Your task to perform on an android device: turn off smart reply in the gmail app Image 0: 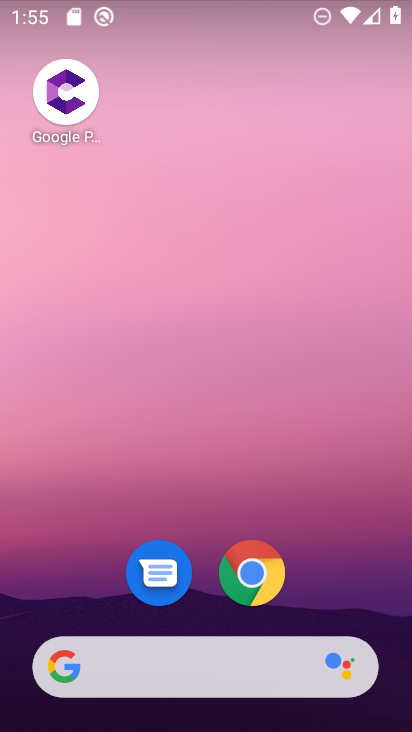
Step 0: drag from (348, 553) to (230, 121)
Your task to perform on an android device: turn off smart reply in the gmail app Image 1: 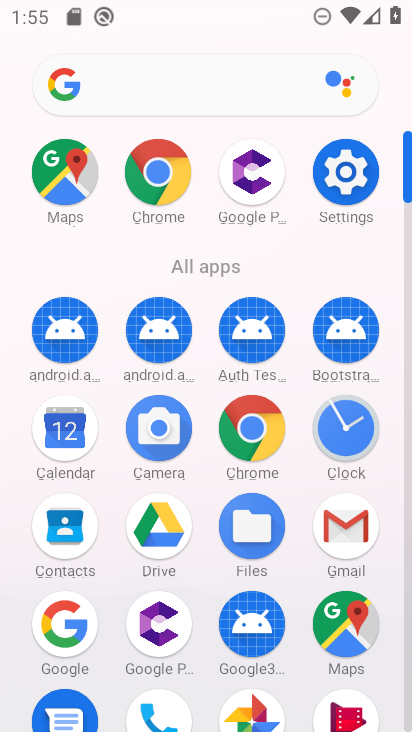
Step 1: click (347, 523)
Your task to perform on an android device: turn off smart reply in the gmail app Image 2: 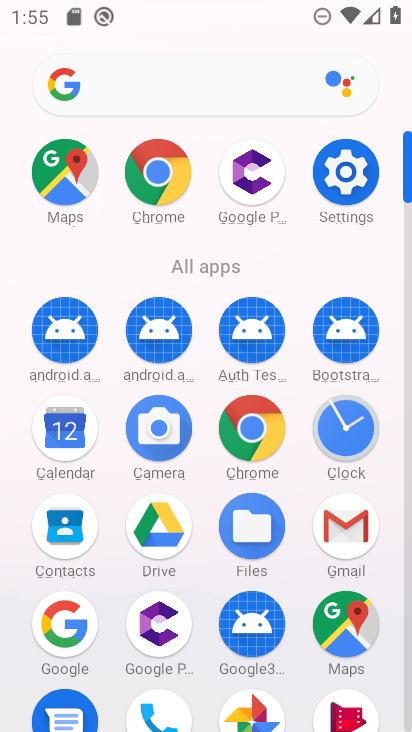
Step 2: click (347, 523)
Your task to perform on an android device: turn off smart reply in the gmail app Image 3: 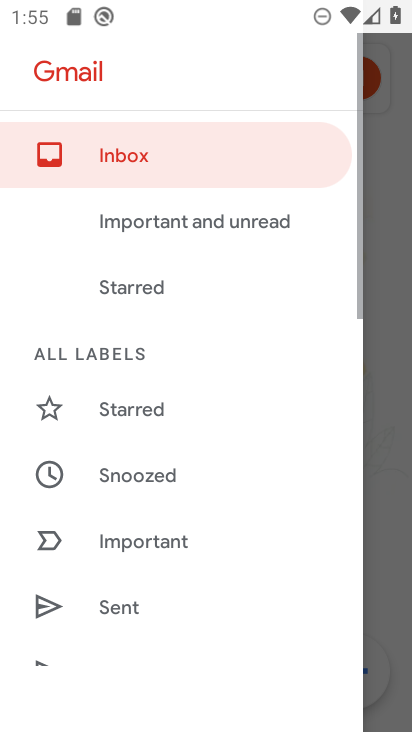
Step 3: click (349, 524)
Your task to perform on an android device: turn off smart reply in the gmail app Image 4: 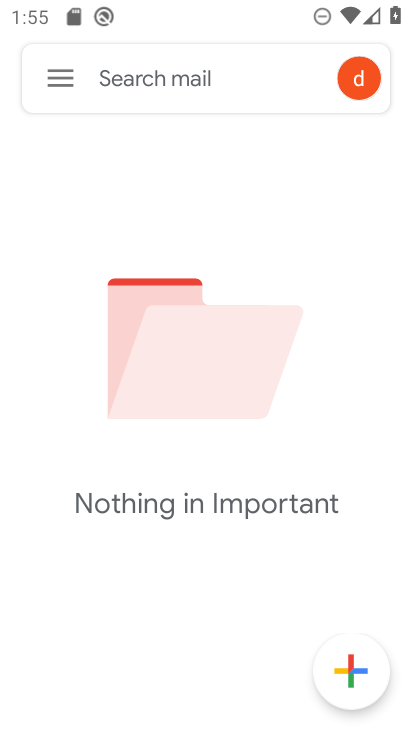
Step 4: click (71, 84)
Your task to perform on an android device: turn off smart reply in the gmail app Image 5: 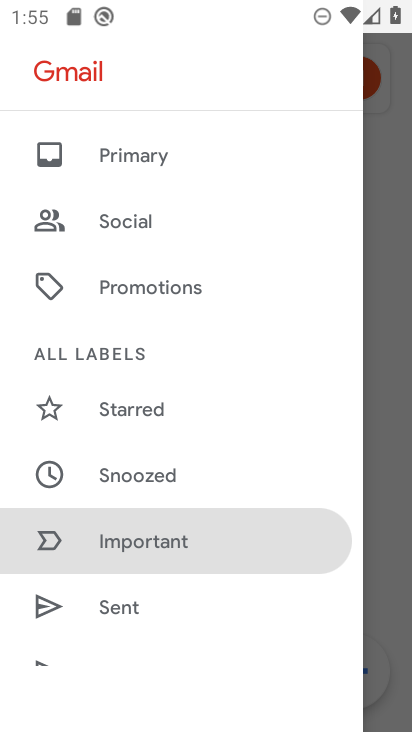
Step 5: drag from (197, 601) to (173, 236)
Your task to perform on an android device: turn off smart reply in the gmail app Image 6: 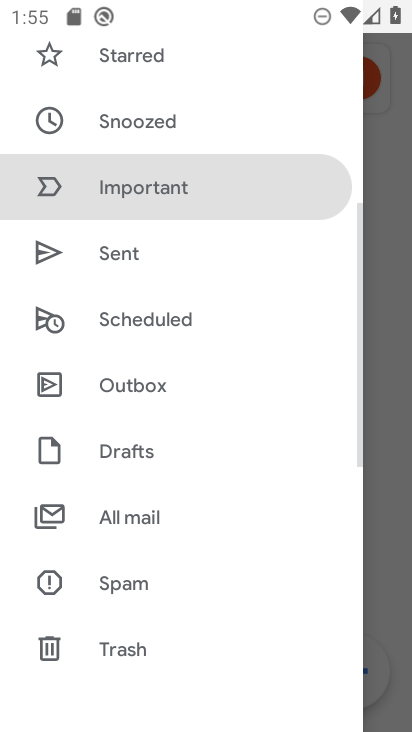
Step 6: drag from (220, 492) to (134, 163)
Your task to perform on an android device: turn off smart reply in the gmail app Image 7: 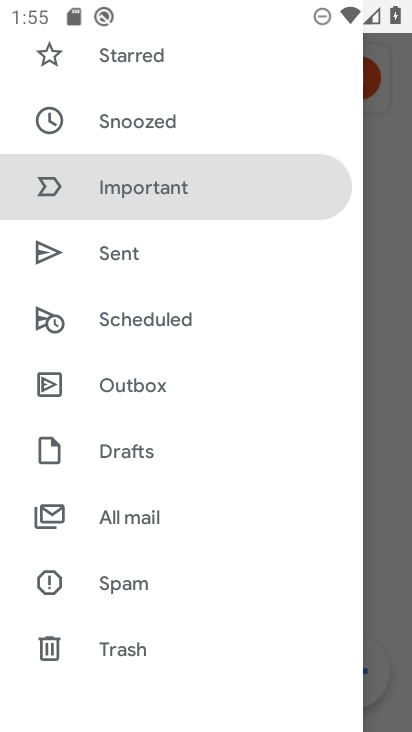
Step 7: drag from (170, 434) to (24, 187)
Your task to perform on an android device: turn off smart reply in the gmail app Image 8: 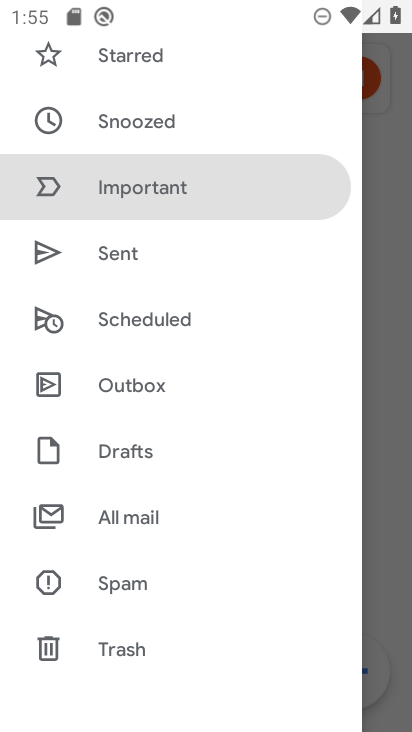
Step 8: drag from (207, 501) to (168, 135)
Your task to perform on an android device: turn off smart reply in the gmail app Image 9: 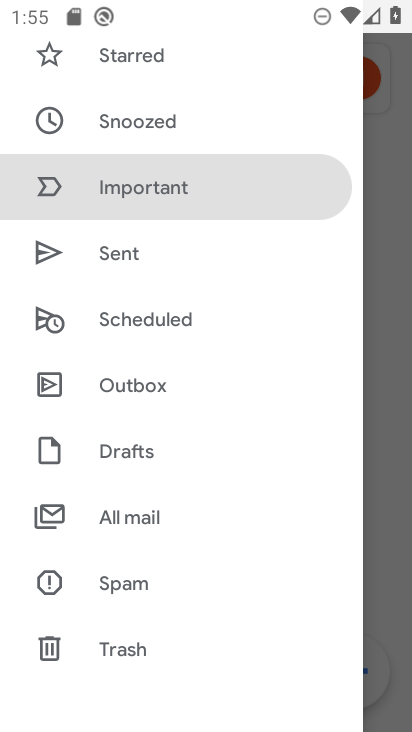
Step 9: drag from (178, 458) to (207, 140)
Your task to perform on an android device: turn off smart reply in the gmail app Image 10: 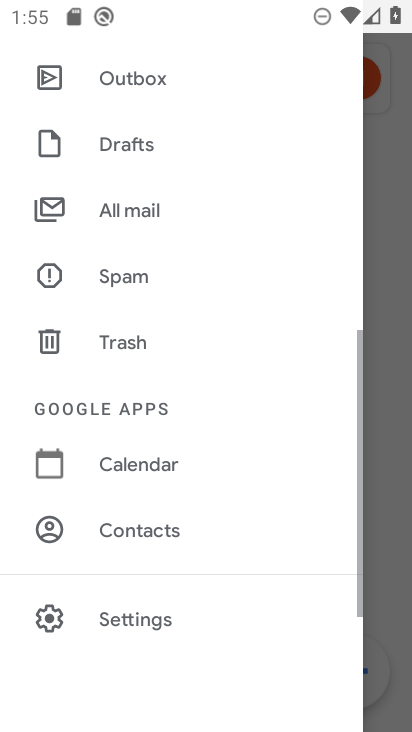
Step 10: drag from (191, 544) to (214, 159)
Your task to perform on an android device: turn off smart reply in the gmail app Image 11: 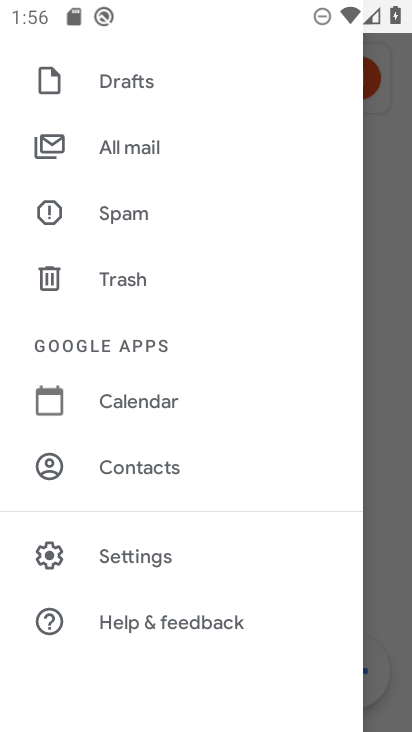
Step 11: click (149, 547)
Your task to perform on an android device: turn off smart reply in the gmail app Image 12: 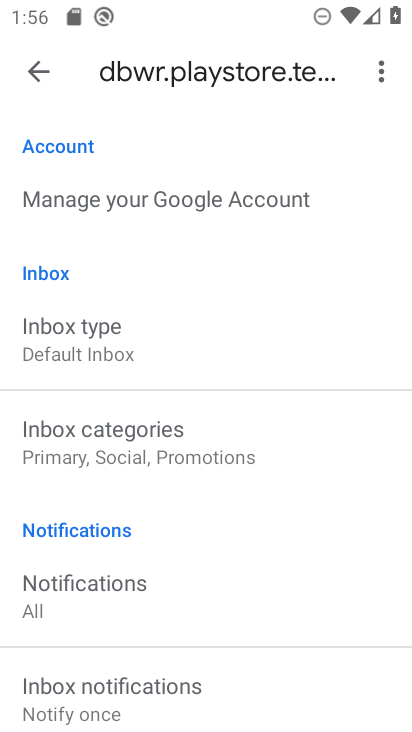
Step 12: drag from (158, 606) to (127, 181)
Your task to perform on an android device: turn off smart reply in the gmail app Image 13: 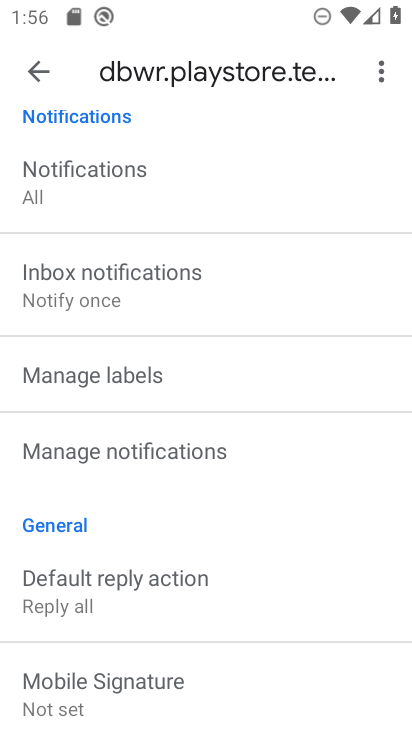
Step 13: drag from (108, 246) to (131, 545)
Your task to perform on an android device: turn off smart reply in the gmail app Image 14: 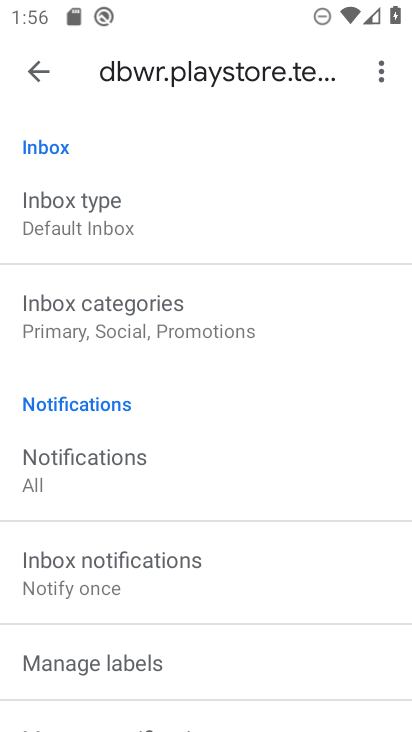
Step 14: drag from (159, 581) to (136, 54)
Your task to perform on an android device: turn off smart reply in the gmail app Image 15: 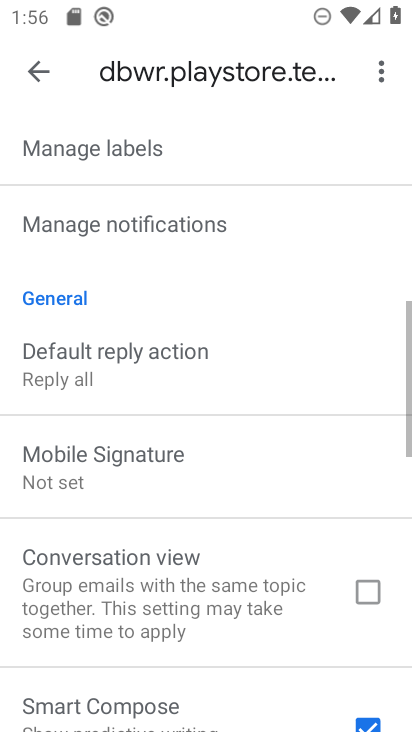
Step 15: drag from (164, 479) to (162, 100)
Your task to perform on an android device: turn off smart reply in the gmail app Image 16: 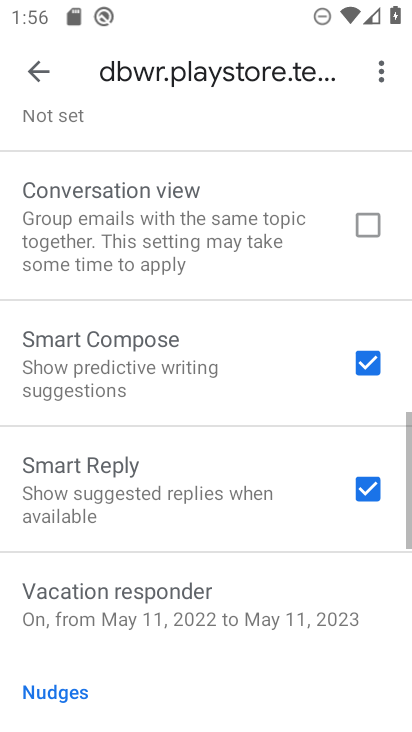
Step 16: drag from (152, 462) to (139, 104)
Your task to perform on an android device: turn off smart reply in the gmail app Image 17: 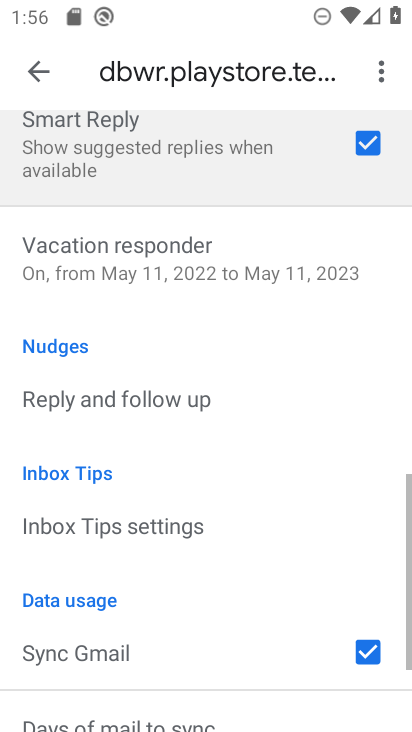
Step 17: drag from (181, 553) to (169, 118)
Your task to perform on an android device: turn off smart reply in the gmail app Image 18: 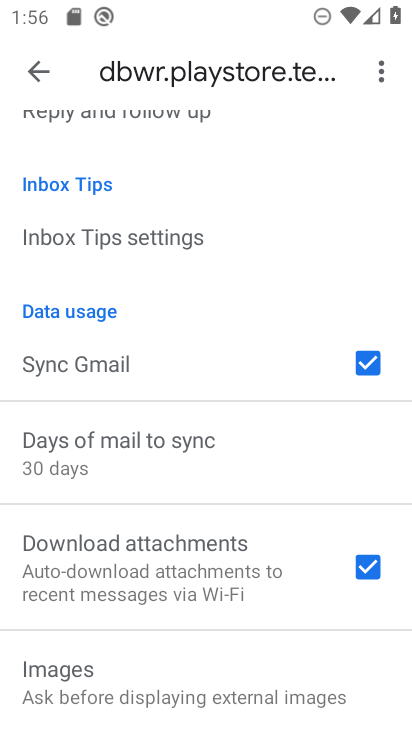
Step 18: drag from (131, 571) to (145, 178)
Your task to perform on an android device: turn off smart reply in the gmail app Image 19: 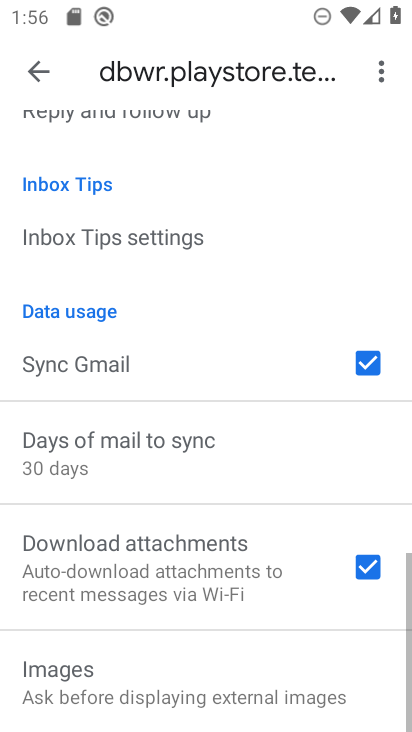
Step 19: drag from (188, 449) to (202, 29)
Your task to perform on an android device: turn off smart reply in the gmail app Image 20: 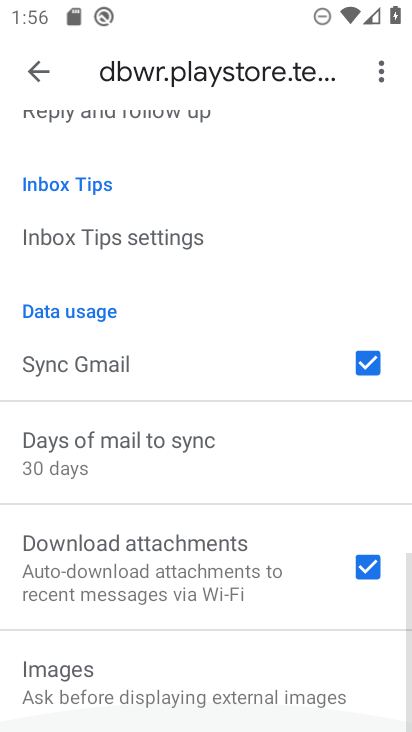
Step 20: drag from (163, 550) to (164, 234)
Your task to perform on an android device: turn off smart reply in the gmail app Image 21: 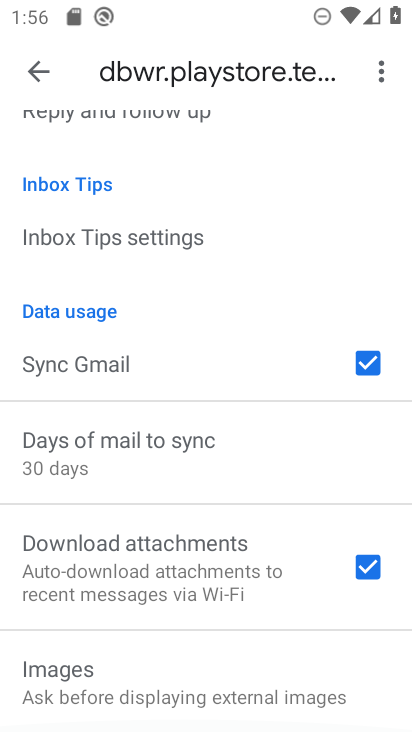
Step 21: drag from (150, 468) to (153, 662)
Your task to perform on an android device: turn off smart reply in the gmail app Image 22: 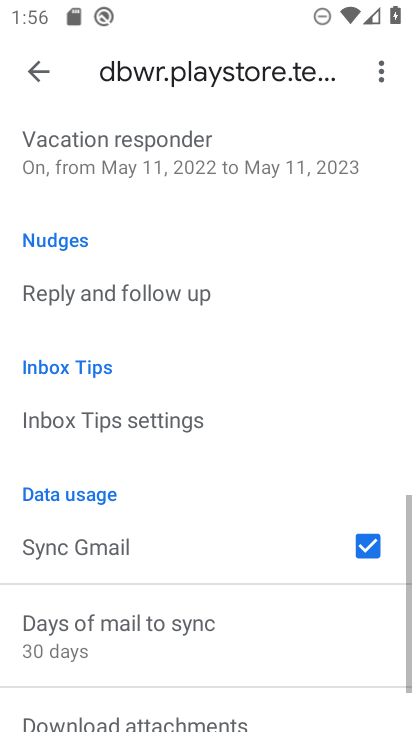
Step 22: drag from (112, 350) to (163, 553)
Your task to perform on an android device: turn off smart reply in the gmail app Image 23: 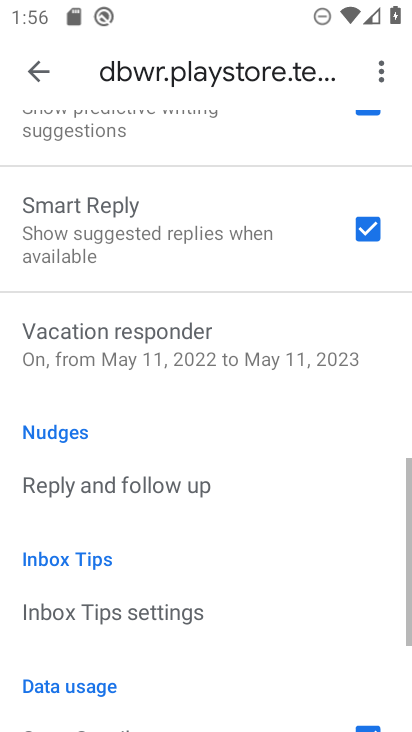
Step 23: drag from (162, 323) to (191, 620)
Your task to perform on an android device: turn off smart reply in the gmail app Image 24: 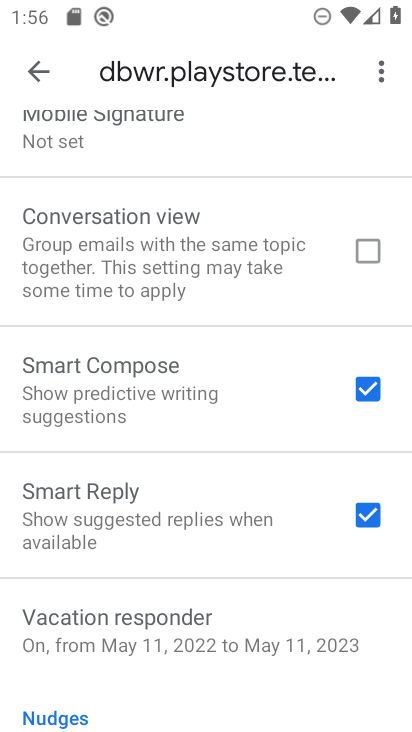
Step 24: click (373, 384)
Your task to perform on an android device: turn off smart reply in the gmail app Image 25: 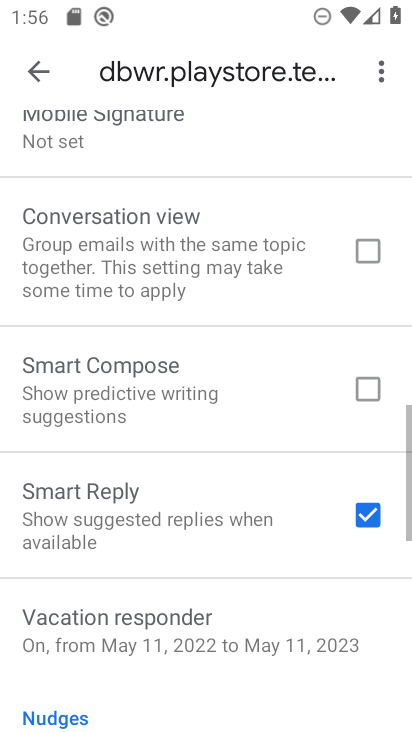
Step 25: task complete